Your task to perform on an android device: check out phone information Image 0: 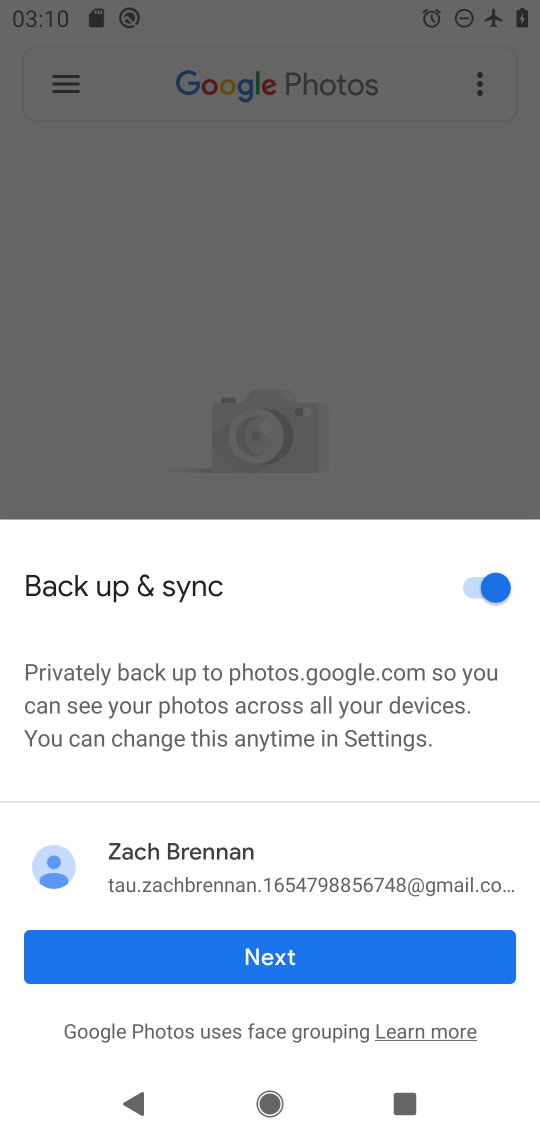
Step 0: press home button
Your task to perform on an android device: check out phone information Image 1: 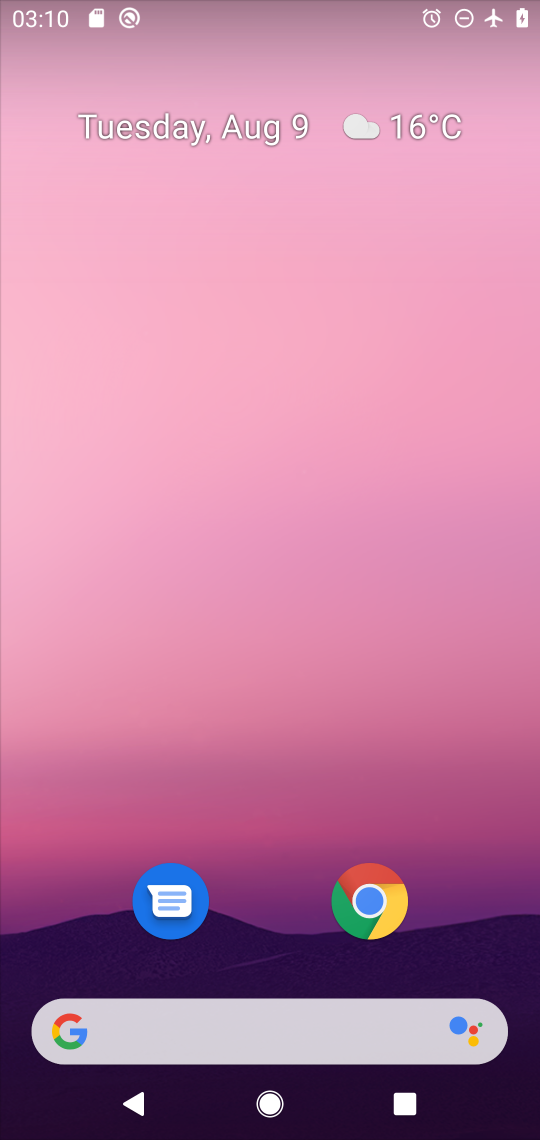
Step 1: drag from (510, 958) to (476, 143)
Your task to perform on an android device: check out phone information Image 2: 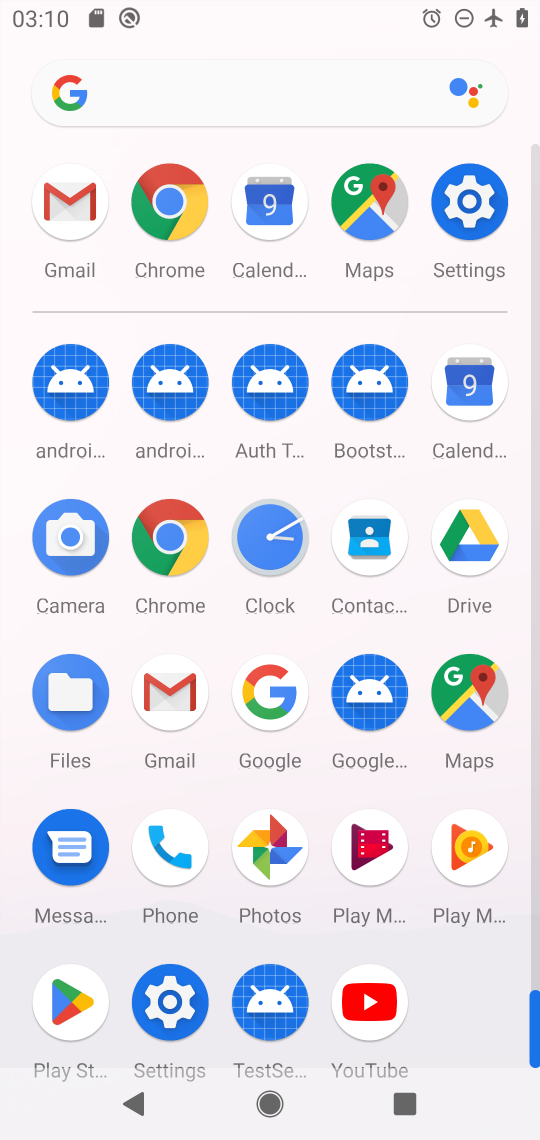
Step 2: click (170, 999)
Your task to perform on an android device: check out phone information Image 3: 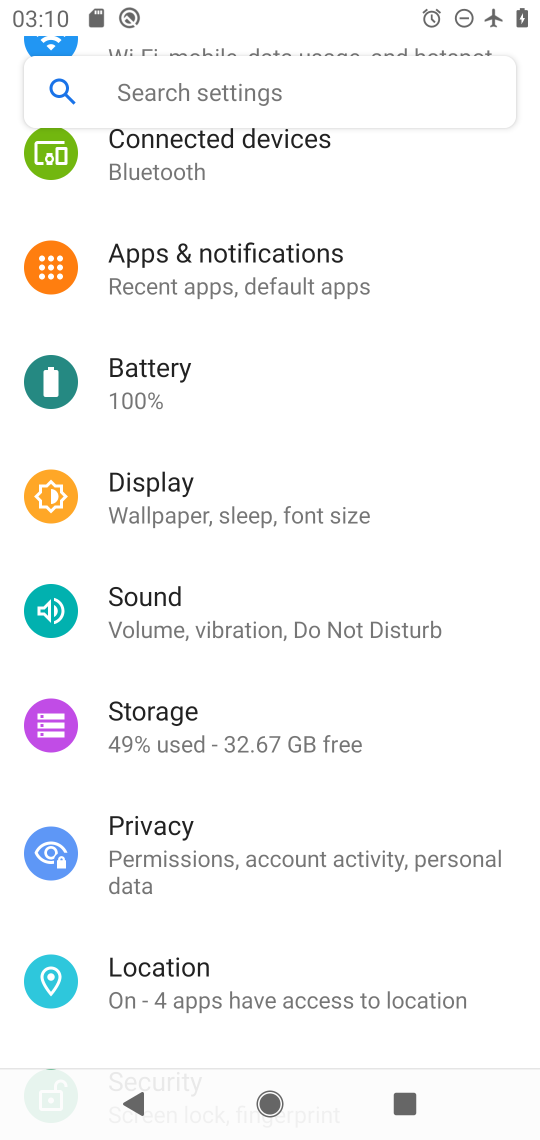
Step 3: drag from (404, 904) to (402, 342)
Your task to perform on an android device: check out phone information Image 4: 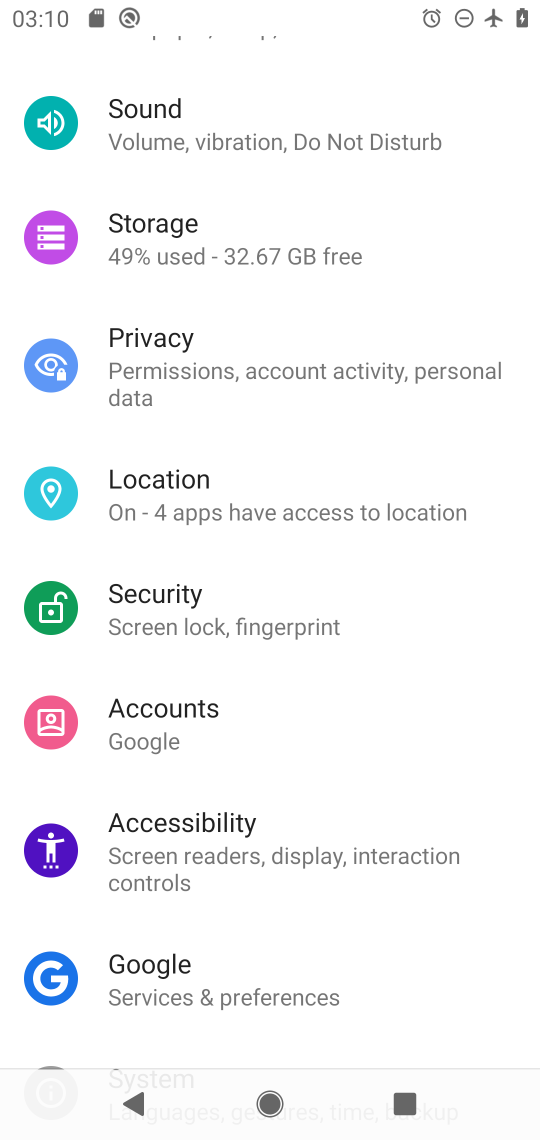
Step 4: drag from (333, 909) to (316, 417)
Your task to perform on an android device: check out phone information Image 5: 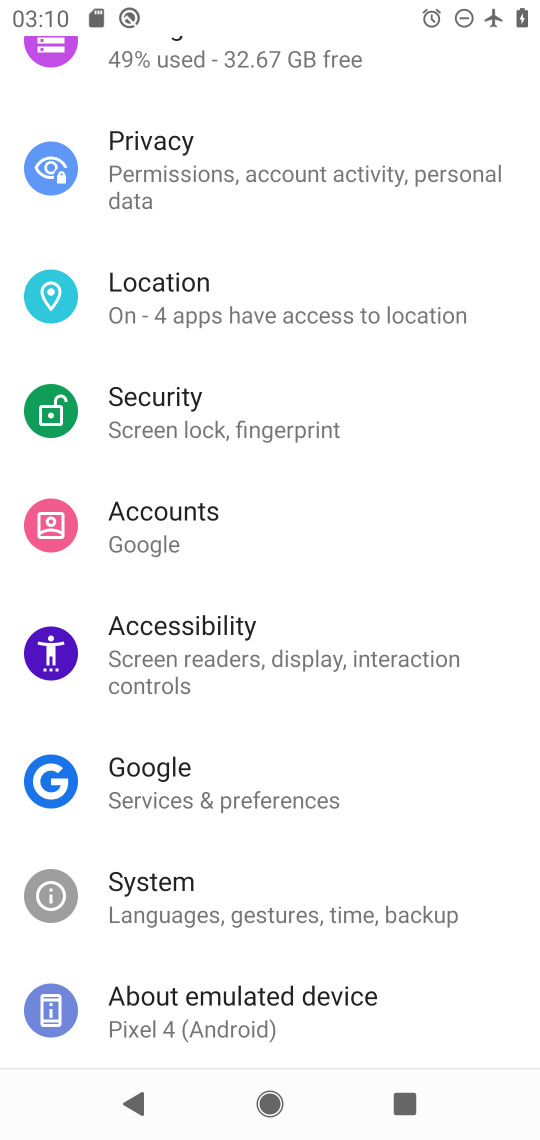
Step 5: drag from (411, 974) to (387, 450)
Your task to perform on an android device: check out phone information Image 6: 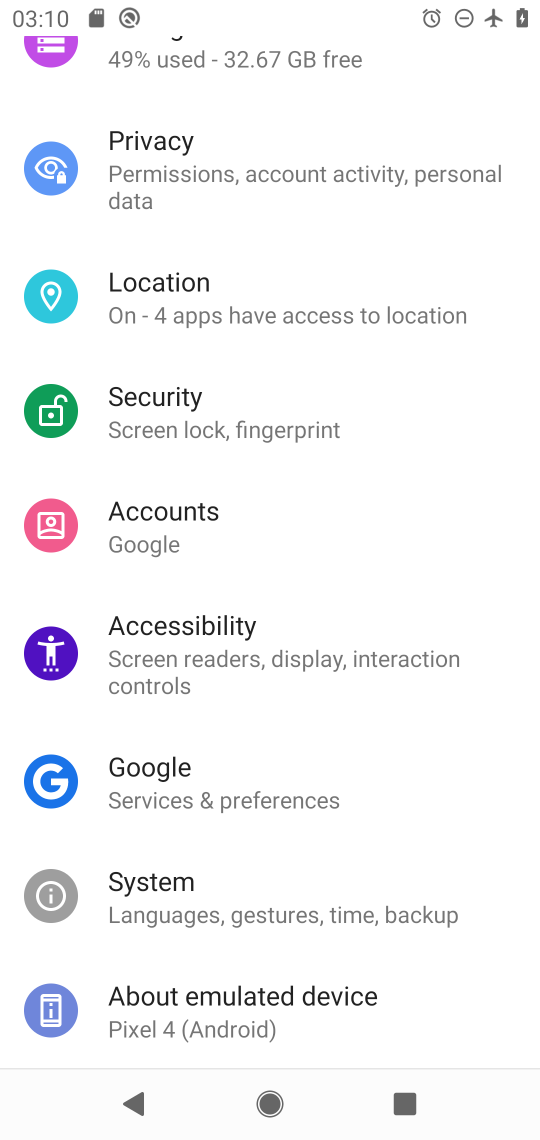
Step 6: click (198, 1030)
Your task to perform on an android device: check out phone information Image 7: 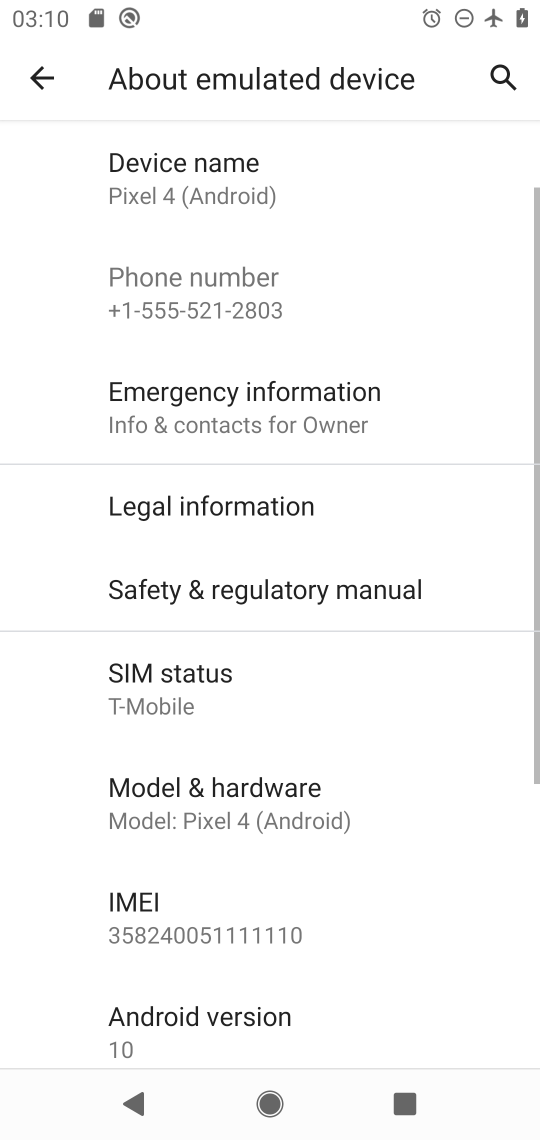
Step 7: task complete